Your task to perform on an android device: Open network settings Image 0: 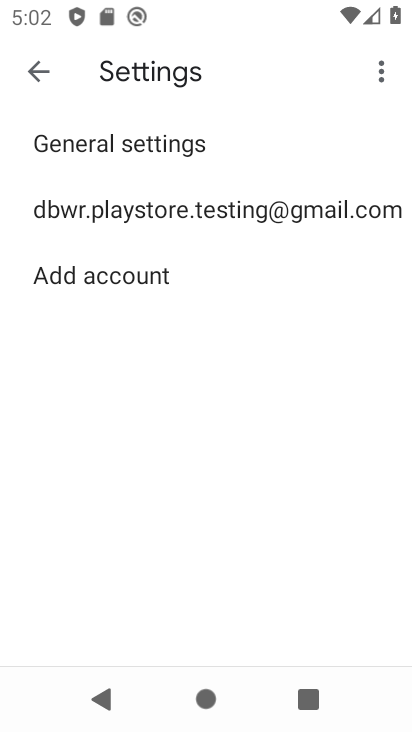
Step 0: press home button
Your task to perform on an android device: Open network settings Image 1: 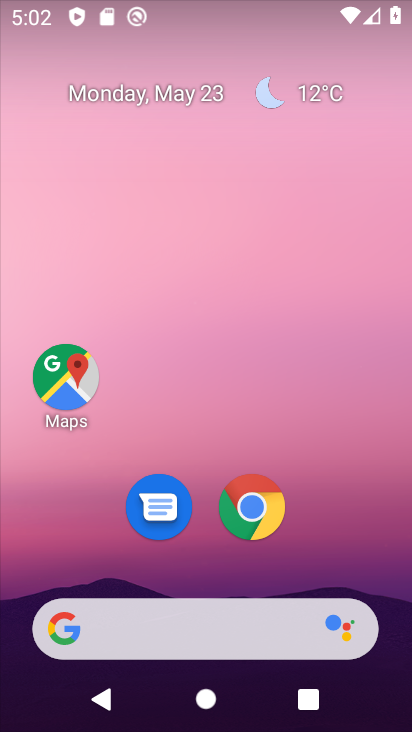
Step 1: drag from (18, 635) to (230, 203)
Your task to perform on an android device: Open network settings Image 2: 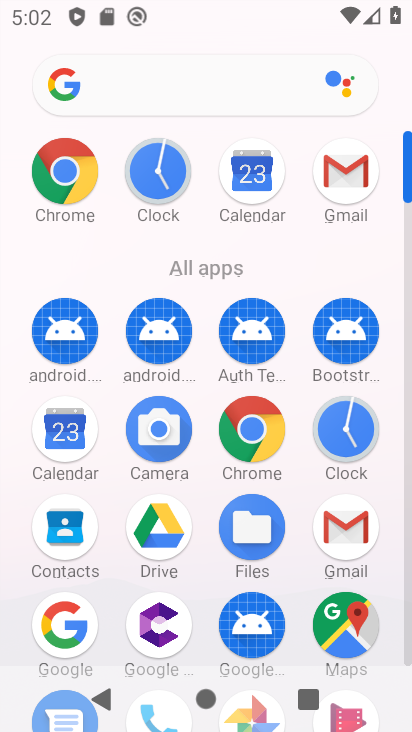
Step 2: drag from (46, 479) to (221, 148)
Your task to perform on an android device: Open network settings Image 3: 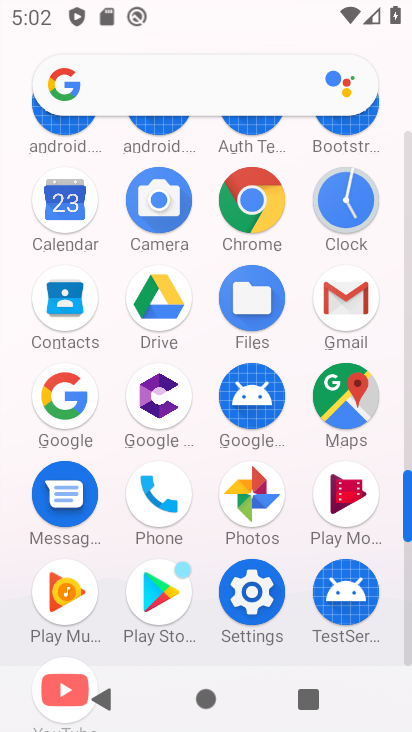
Step 3: click (273, 599)
Your task to perform on an android device: Open network settings Image 4: 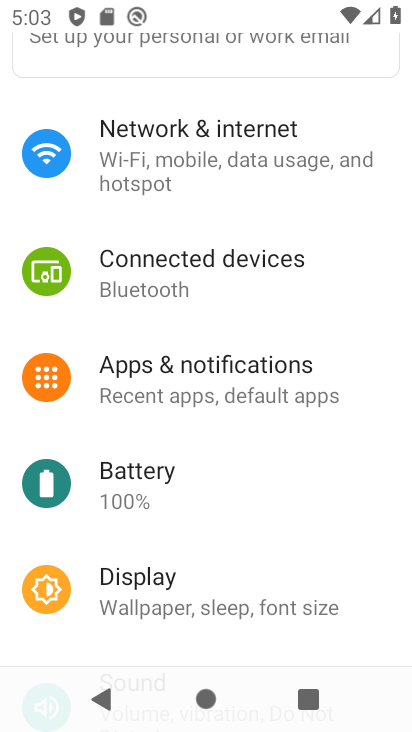
Step 4: click (241, 154)
Your task to perform on an android device: Open network settings Image 5: 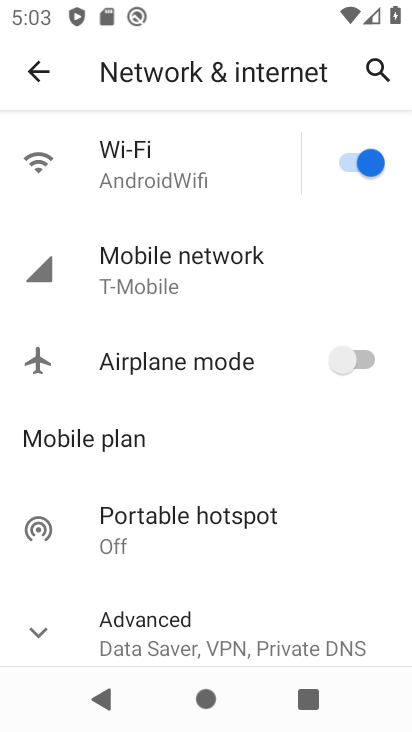
Step 5: click (200, 273)
Your task to perform on an android device: Open network settings Image 6: 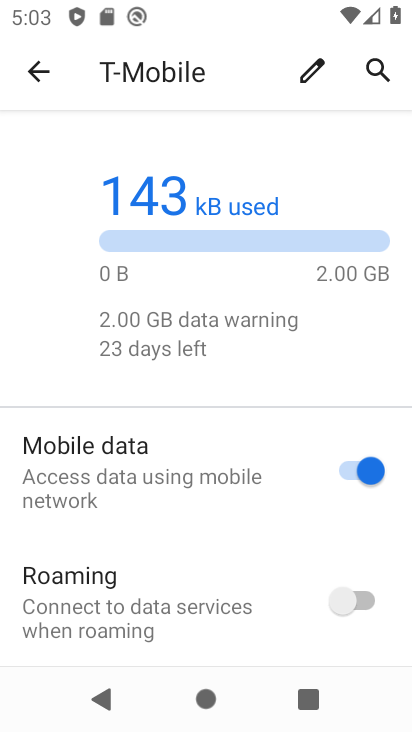
Step 6: task complete